Your task to perform on an android device: turn on showing notifications on the lock screen Image 0: 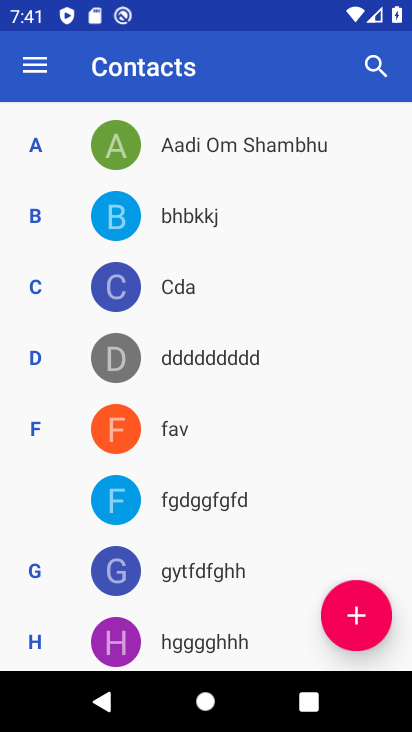
Step 0: press home button
Your task to perform on an android device: turn on showing notifications on the lock screen Image 1: 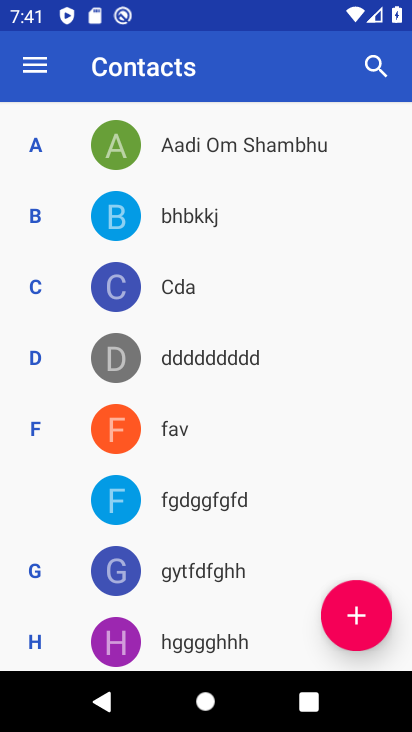
Step 1: press home button
Your task to perform on an android device: turn on showing notifications on the lock screen Image 2: 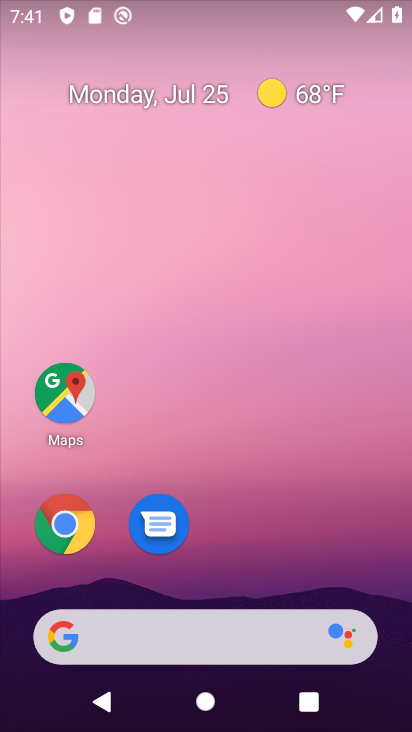
Step 2: drag from (279, 556) to (288, 59)
Your task to perform on an android device: turn on showing notifications on the lock screen Image 3: 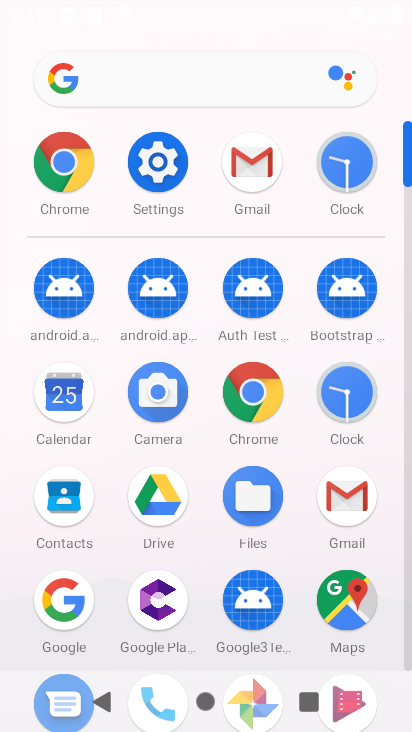
Step 3: click (154, 156)
Your task to perform on an android device: turn on showing notifications on the lock screen Image 4: 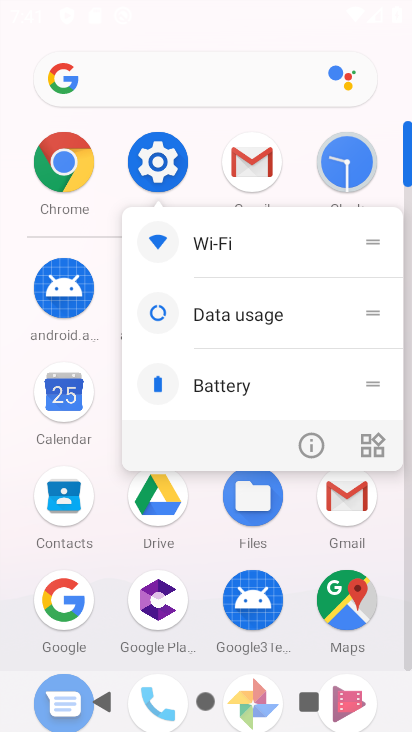
Step 4: click (154, 154)
Your task to perform on an android device: turn on showing notifications on the lock screen Image 5: 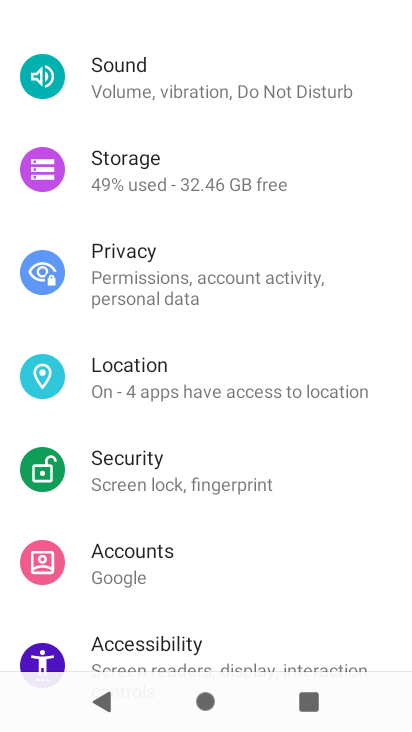
Step 5: drag from (254, 319) to (276, 454)
Your task to perform on an android device: turn on showing notifications on the lock screen Image 6: 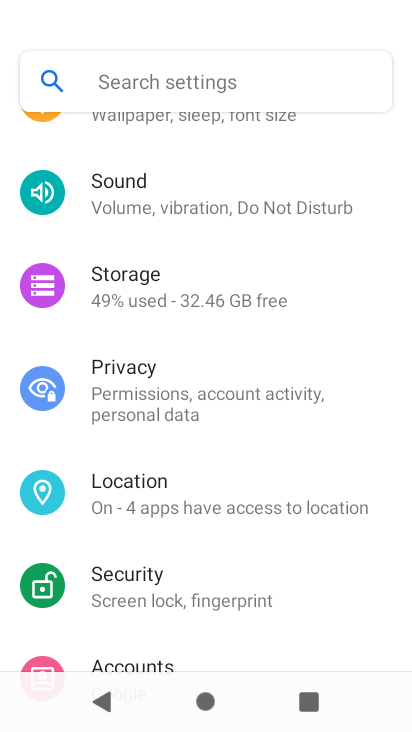
Step 6: drag from (281, 196) to (292, 498)
Your task to perform on an android device: turn on showing notifications on the lock screen Image 7: 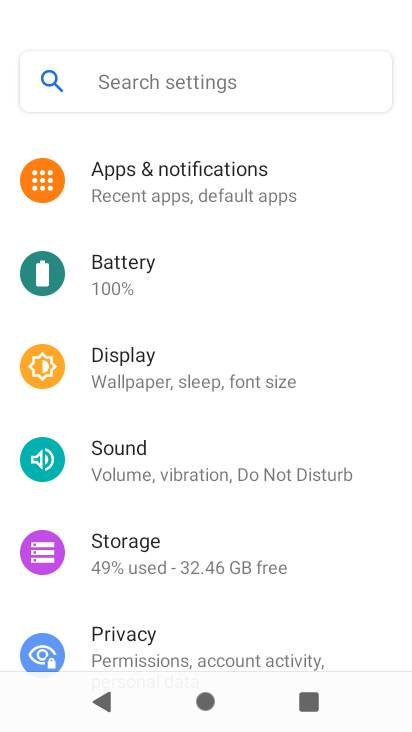
Step 7: click (261, 183)
Your task to perform on an android device: turn on showing notifications on the lock screen Image 8: 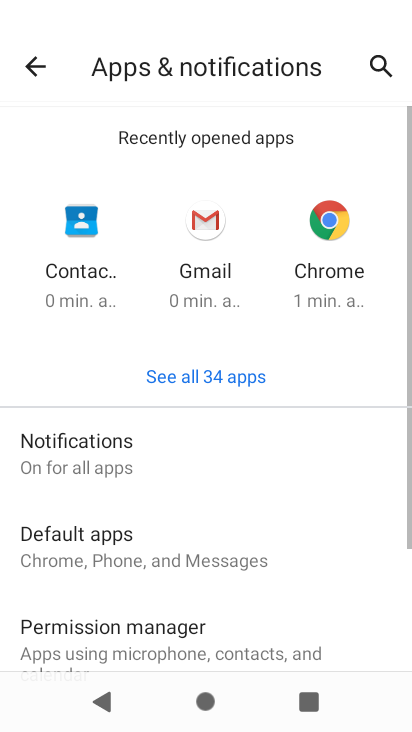
Step 8: click (78, 440)
Your task to perform on an android device: turn on showing notifications on the lock screen Image 9: 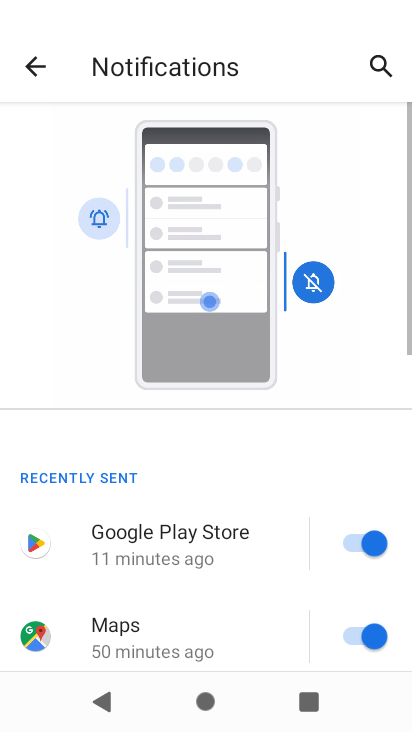
Step 9: drag from (212, 598) to (300, 20)
Your task to perform on an android device: turn on showing notifications on the lock screen Image 10: 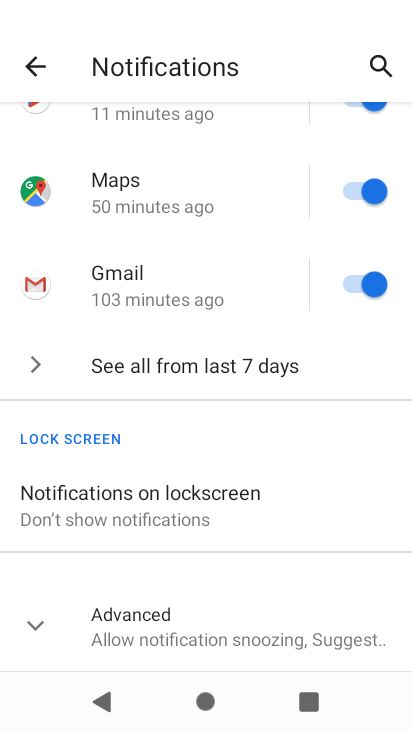
Step 10: click (162, 508)
Your task to perform on an android device: turn on showing notifications on the lock screen Image 11: 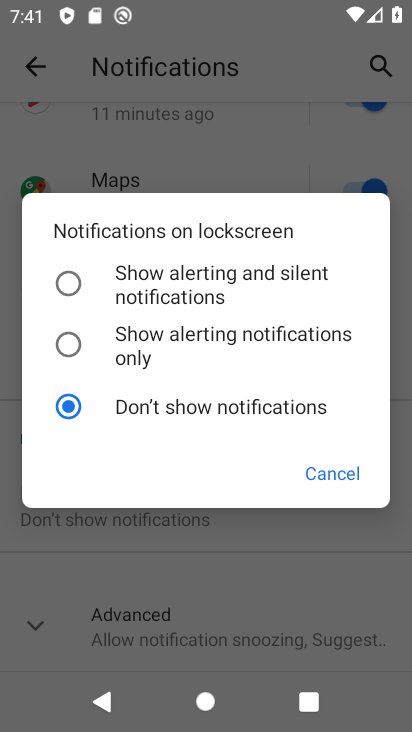
Step 11: click (64, 273)
Your task to perform on an android device: turn on showing notifications on the lock screen Image 12: 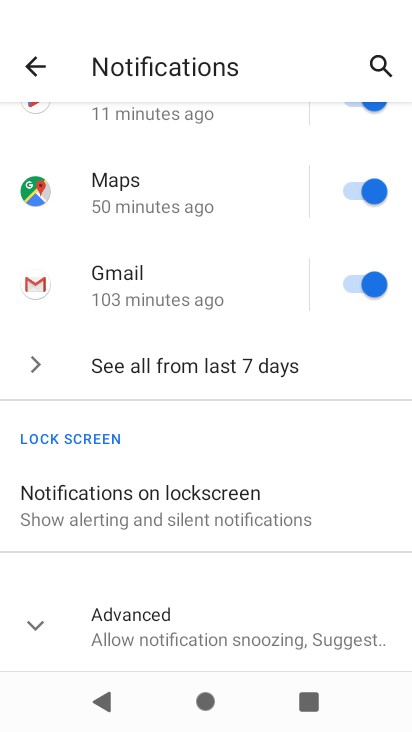
Step 12: task complete